Your task to perform on an android device: Go to eBay Image 0: 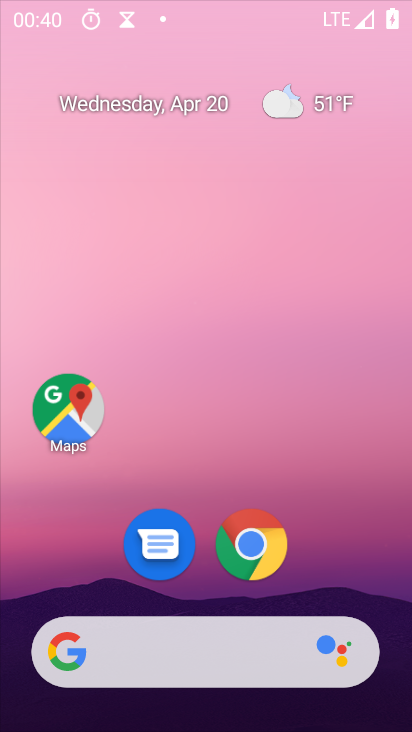
Step 0: drag from (323, 553) to (409, 416)
Your task to perform on an android device: Go to eBay Image 1: 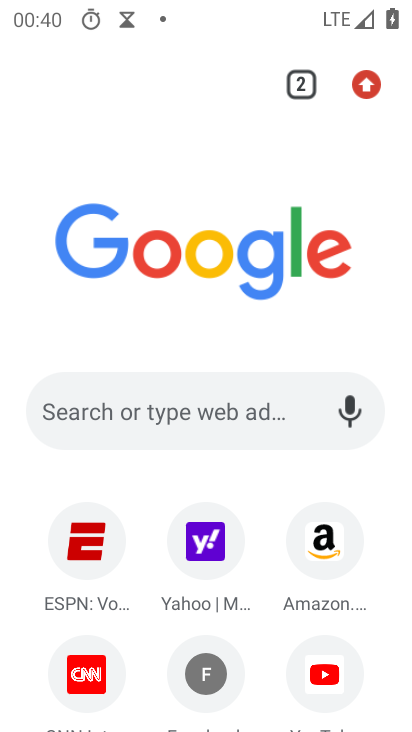
Step 1: click (168, 408)
Your task to perform on an android device: Go to eBay Image 2: 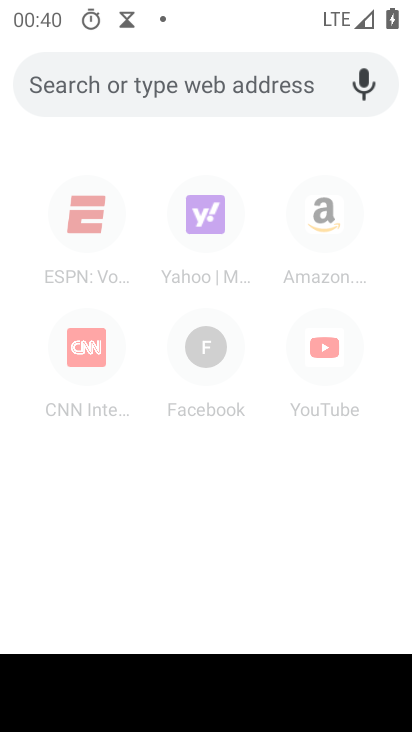
Step 2: type "ebay"
Your task to perform on an android device: Go to eBay Image 3: 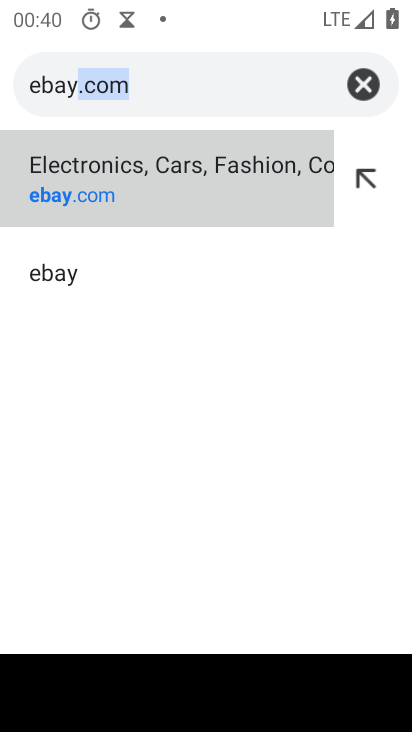
Step 3: click (59, 186)
Your task to perform on an android device: Go to eBay Image 4: 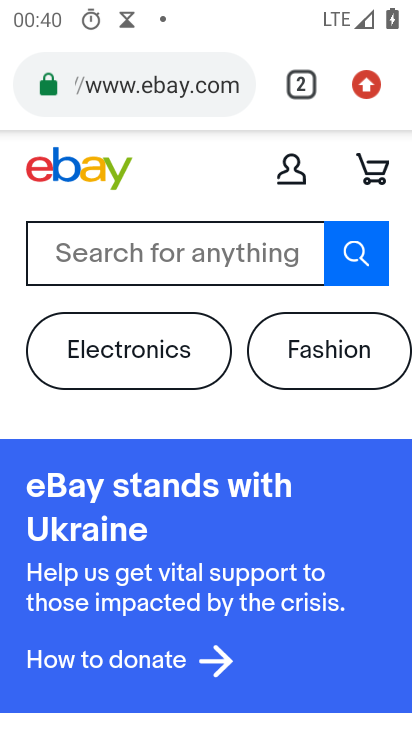
Step 4: task complete